Your task to perform on an android device: What's the weather going to be tomorrow? Image 0: 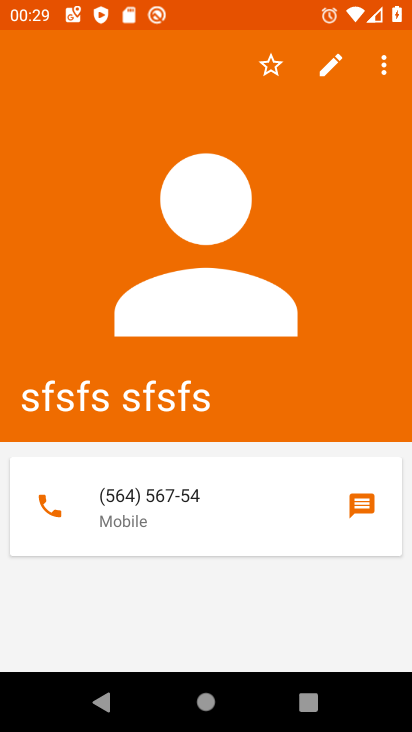
Step 0: press home button
Your task to perform on an android device: What's the weather going to be tomorrow? Image 1: 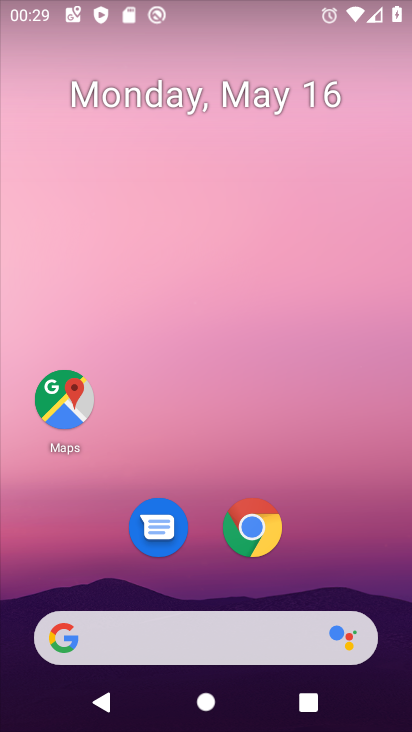
Step 1: click (211, 639)
Your task to perform on an android device: What's the weather going to be tomorrow? Image 2: 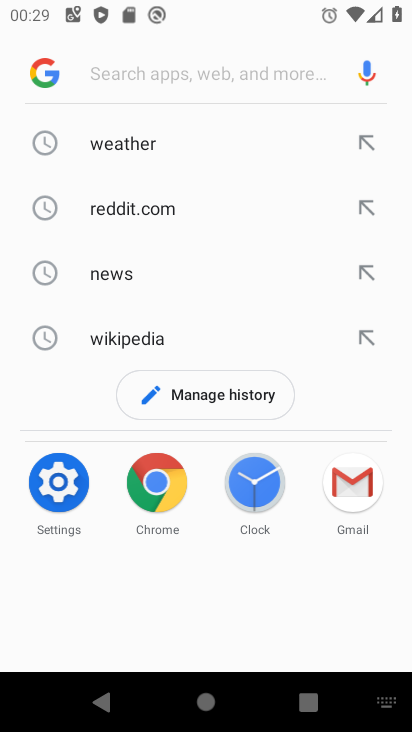
Step 2: click (192, 128)
Your task to perform on an android device: What's the weather going to be tomorrow? Image 3: 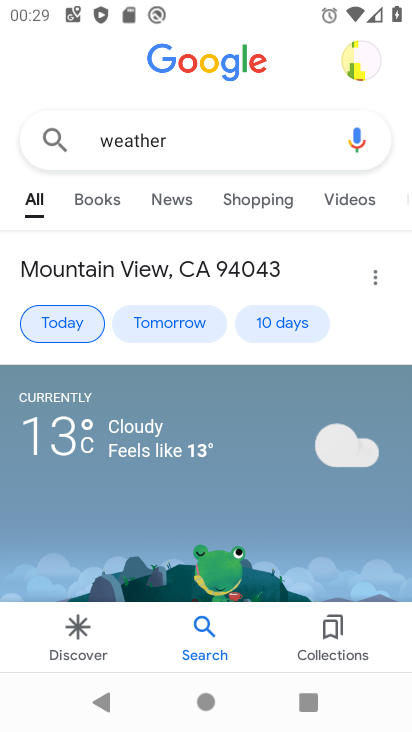
Step 3: click (203, 331)
Your task to perform on an android device: What's the weather going to be tomorrow? Image 4: 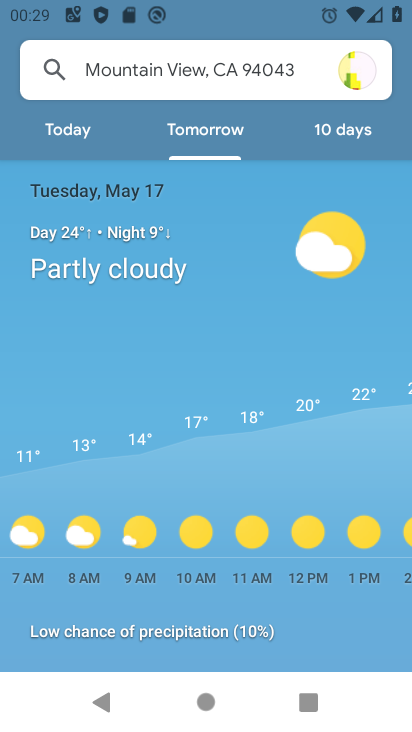
Step 4: task complete